Your task to perform on an android device: toggle translation in the chrome app Image 0: 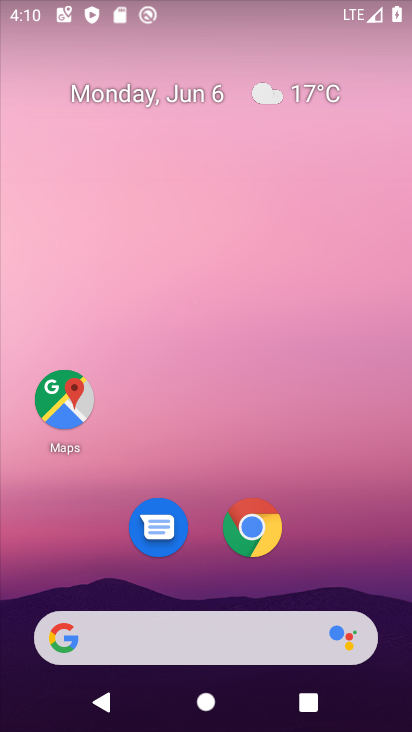
Step 0: click (266, 528)
Your task to perform on an android device: toggle translation in the chrome app Image 1: 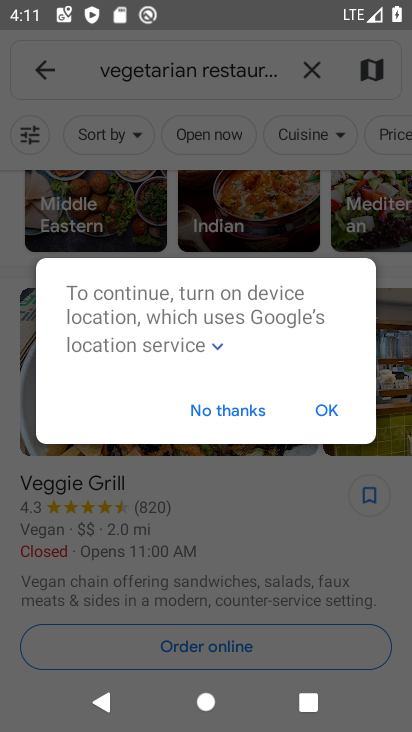
Step 1: click (318, 63)
Your task to perform on an android device: toggle translation in the chrome app Image 2: 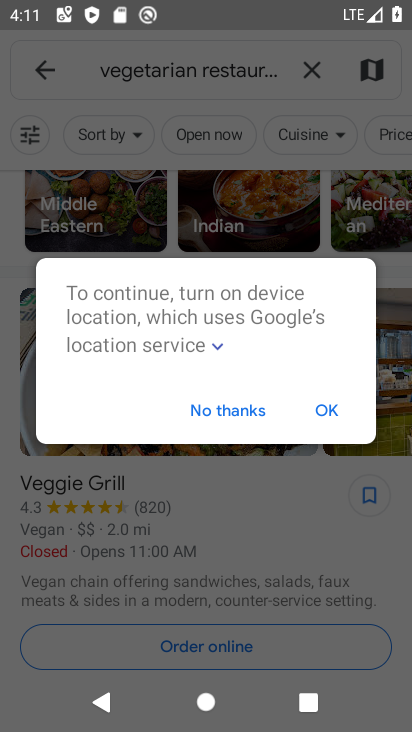
Step 2: click (197, 405)
Your task to perform on an android device: toggle translation in the chrome app Image 3: 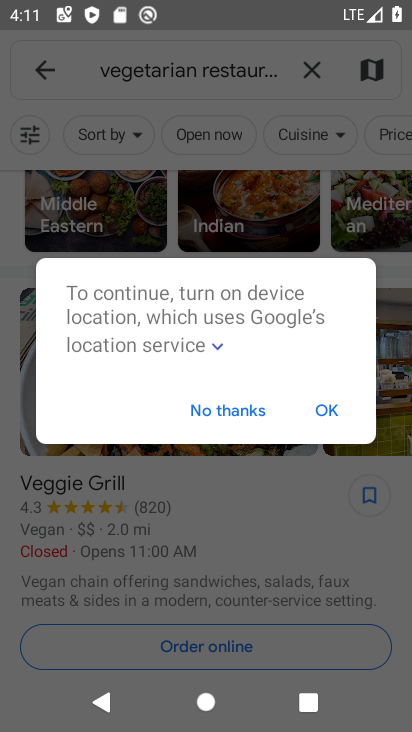
Step 3: click (197, 405)
Your task to perform on an android device: toggle translation in the chrome app Image 4: 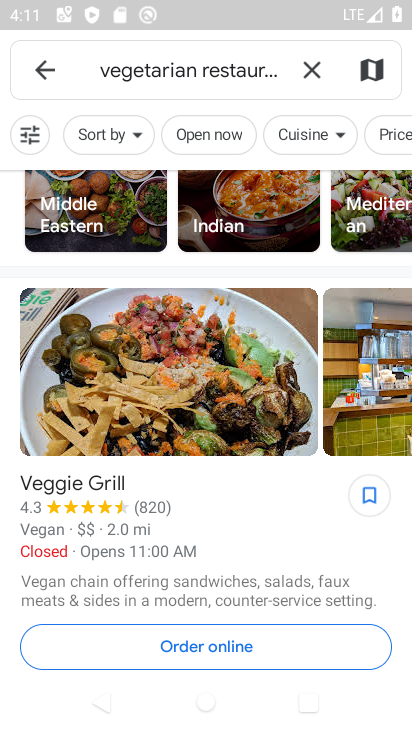
Step 4: click (40, 60)
Your task to perform on an android device: toggle translation in the chrome app Image 5: 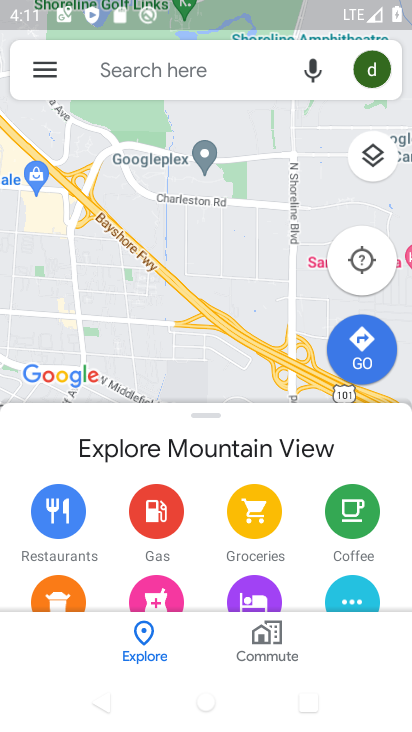
Step 5: click (37, 66)
Your task to perform on an android device: toggle translation in the chrome app Image 6: 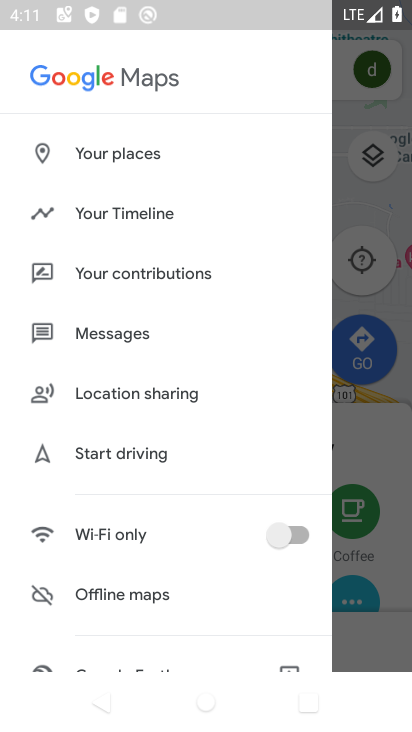
Step 6: click (211, 589)
Your task to perform on an android device: toggle translation in the chrome app Image 7: 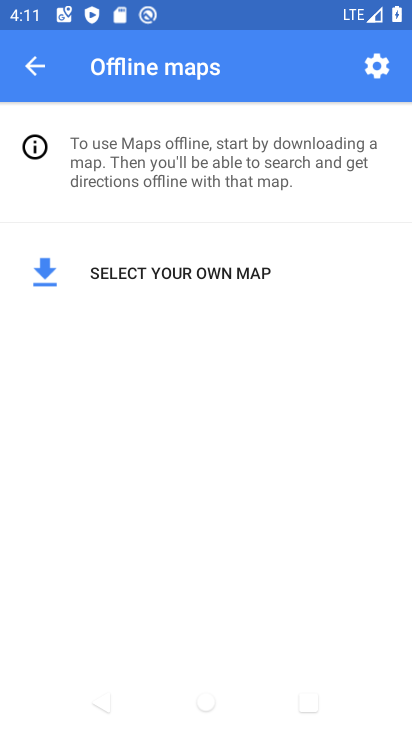
Step 7: press home button
Your task to perform on an android device: toggle translation in the chrome app Image 8: 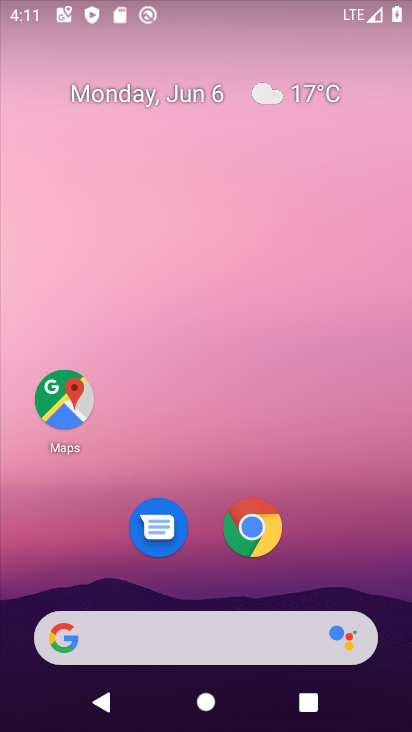
Step 8: click (254, 521)
Your task to perform on an android device: toggle translation in the chrome app Image 9: 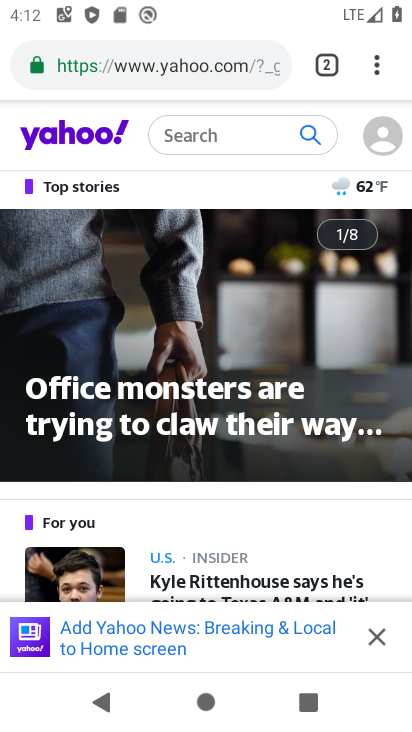
Step 9: click (371, 62)
Your task to perform on an android device: toggle translation in the chrome app Image 10: 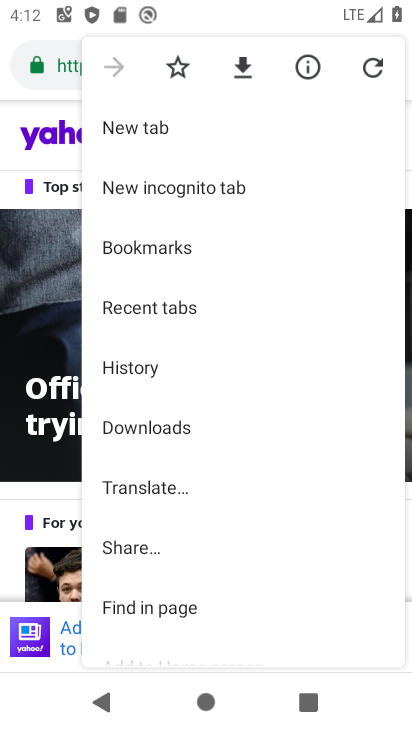
Step 10: click (155, 493)
Your task to perform on an android device: toggle translation in the chrome app Image 11: 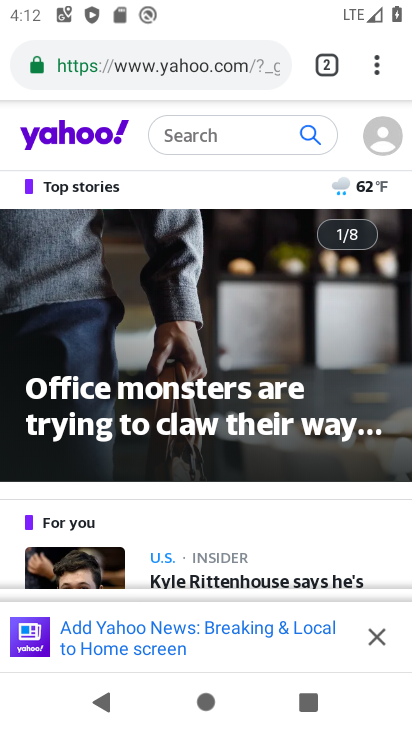
Step 11: click (371, 634)
Your task to perform on an android device: toggle translation in the chrome app Image 12: 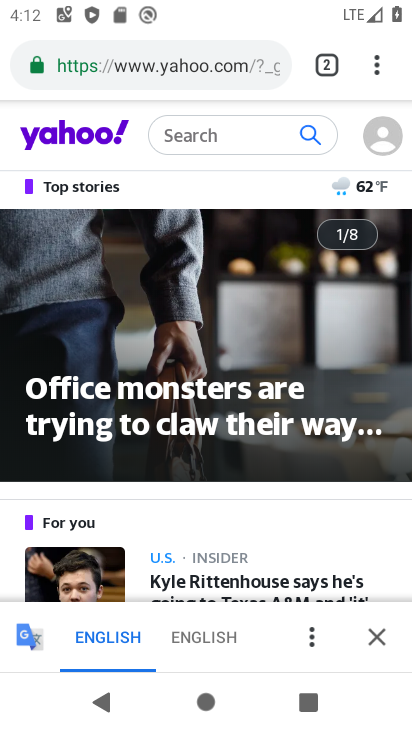
Step 12: click (314, 633)
Your task to perform on an android device: toggle translation in the chrome app Image 13: 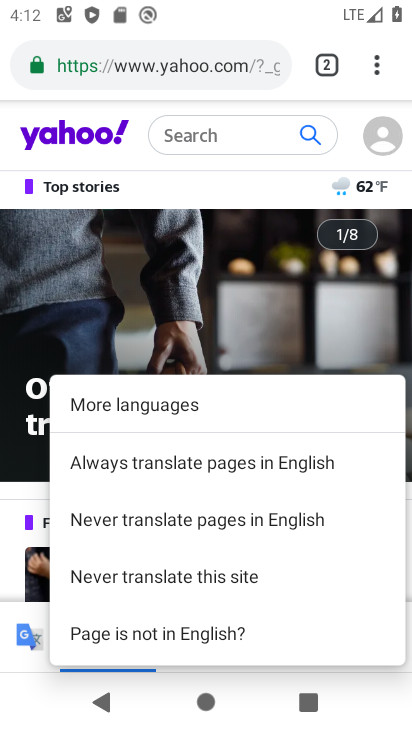
Step 13: click (177, 515)
Your task to perform on an android device: toggle translation in the chrome app Image 14: 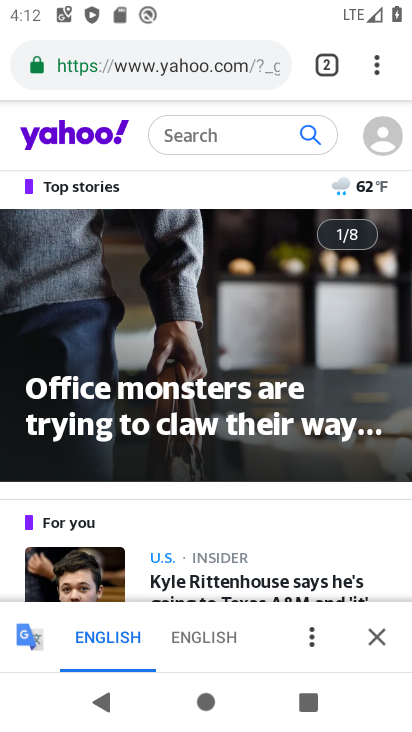
Step 14: task complete